Your task to perform on an android device: Open Reddit.com Image 0: 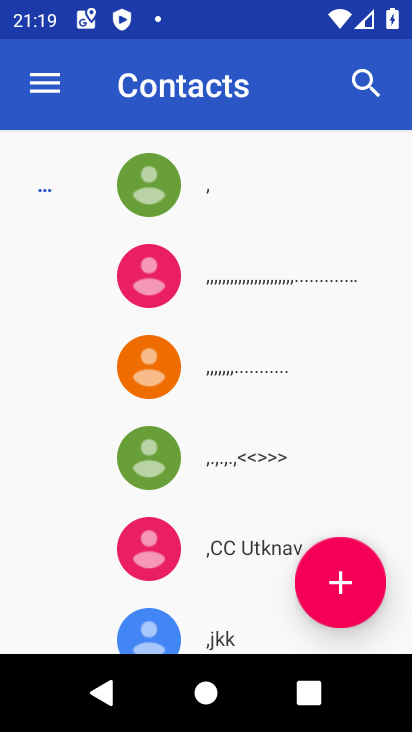
Step 0: press home button
Your task to perform on an android device: Open Reddit.com Image 1: 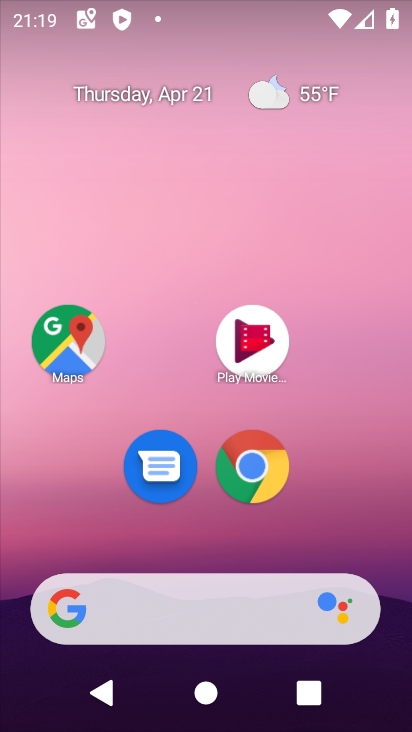
Step 1: click (256, 489)
Your task to perform on an android device: Open Reddit.com Image 2: 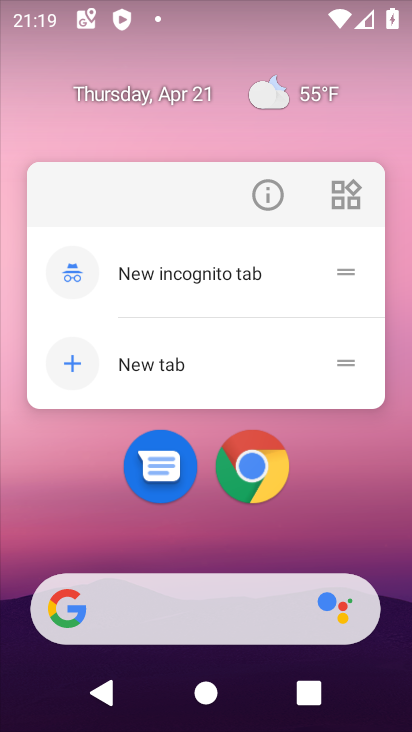
Step 2: click (256, 480)
Your task to perform on an android device: Open Reddit.com Image 3: 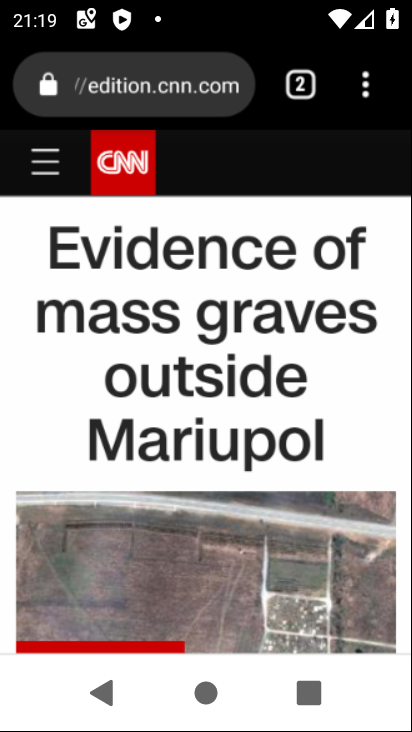
Step 3: click (183, 86)
Your task to perform on an android device: Open Reddit.com Image 4: 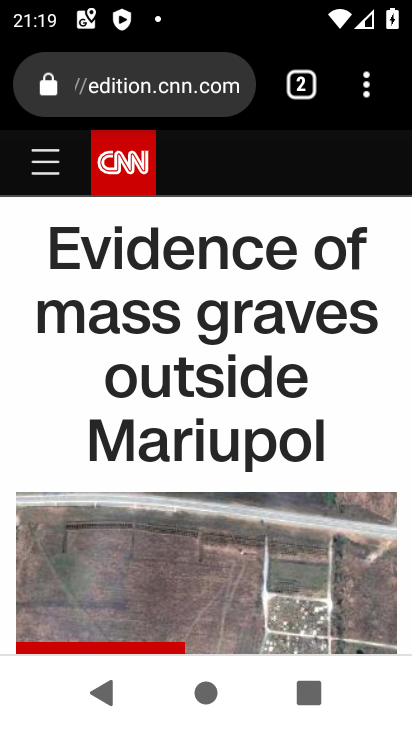
Step 4: click (159, 91)
Your task to perform on an android device: Open Reddit.com Image 5: 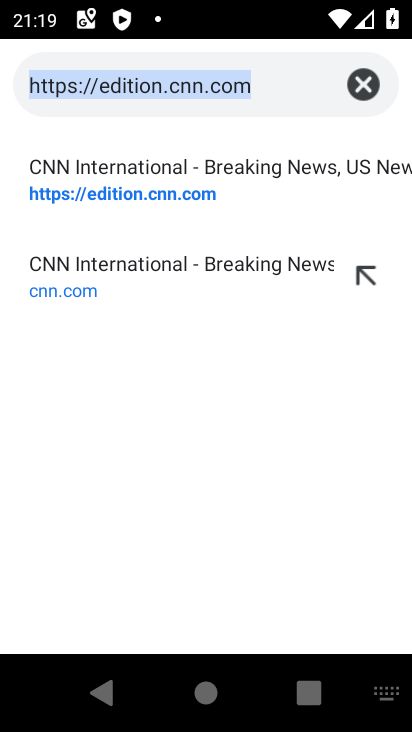
Step 5: type "reddit.com"
Your task to perform on an android device: Open Reddit.com Image 6: 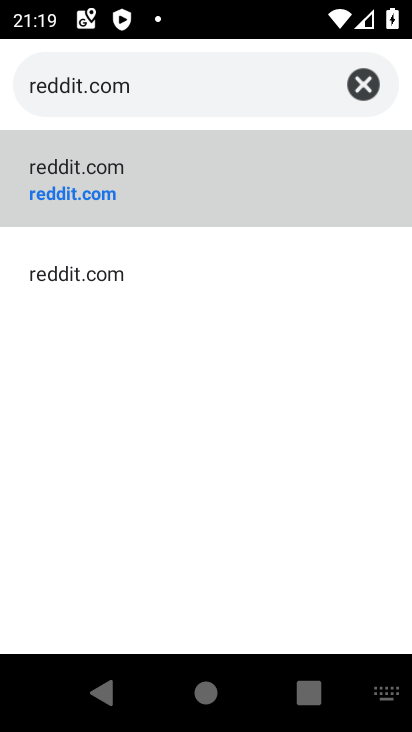
Step 6: click (79, 190)
Your task to perform on an android device: Open Reddit.com Image 7: 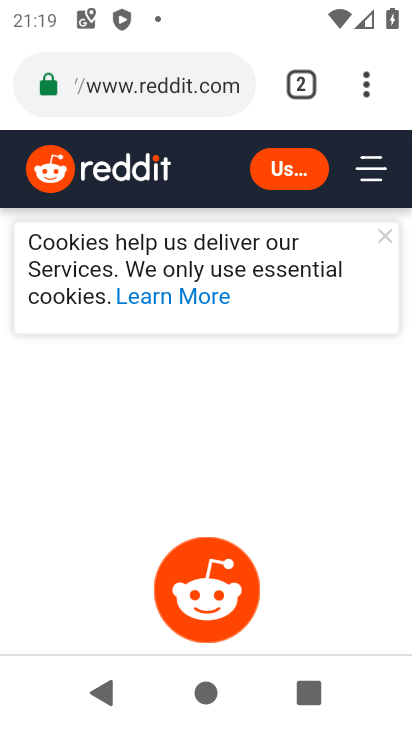
Step 7: task complete